Your task to perform on an android device: manage bookmarks in the chrome app Image 0: 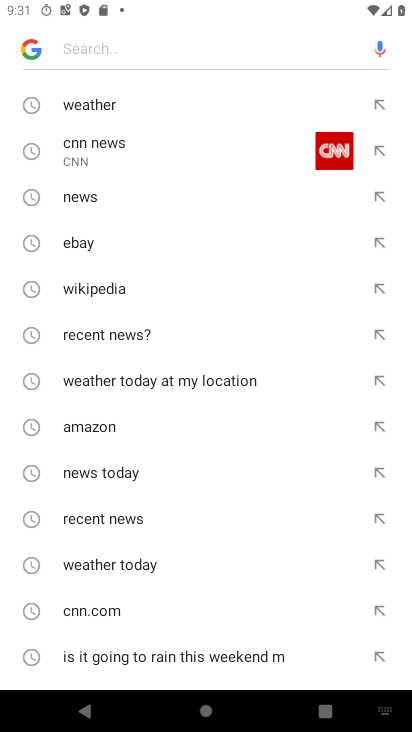
Step 0: press home button
Your task to perform on an android device: manage bookmarks in the chrome app Image 1: 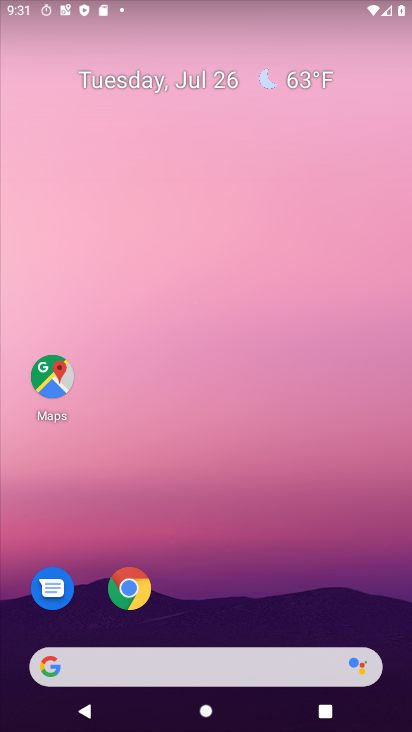
Step 1: click (131, 603)
Your task to perform on an android device: manage bookmarks in the chrome app Image 2: 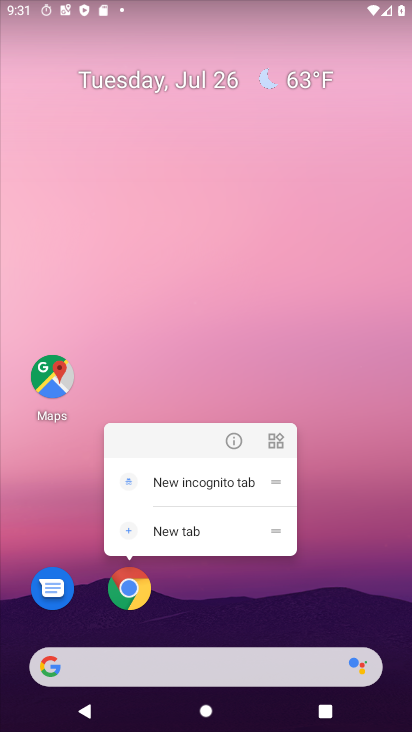
Step 2: click (131, 603)
Your task to perform on an android device: manage bookmarks in the chrome app Image 3: 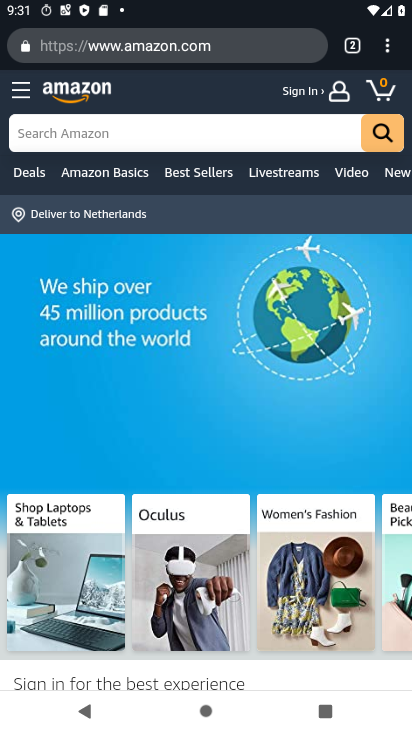
Step 3: click (393, 49)
Your task to perform on an android device: manage bookmarks in the chrome app Image 4: 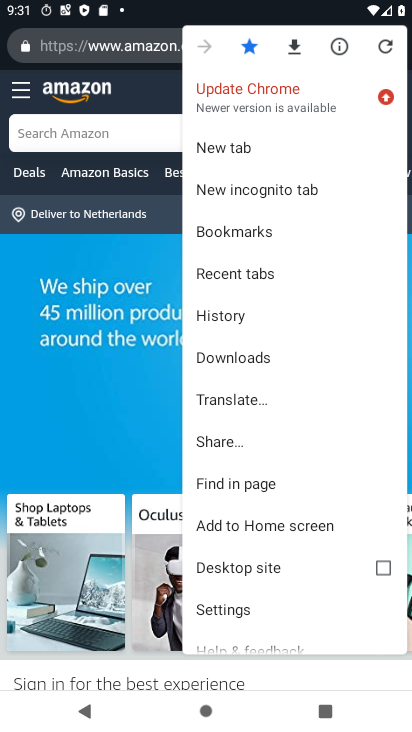
Step 4: click (254, 235)
Your task to perform on an android device: manage bookmarks in the chrome app Image 5: 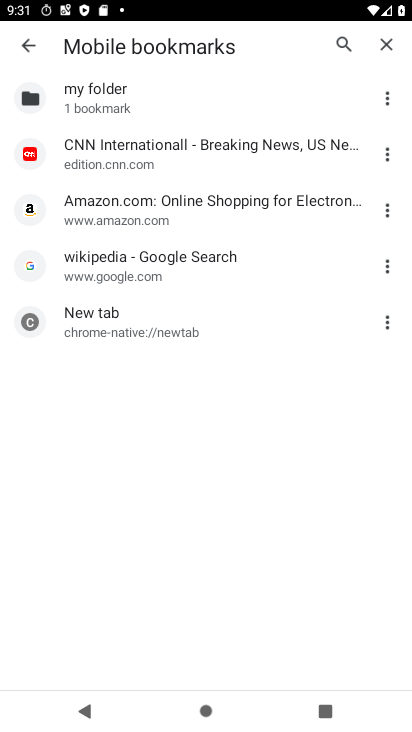
Step 5: click (396, 328)
Your task to perform on an android device: manage bookmarks in the chrome app Image 6: 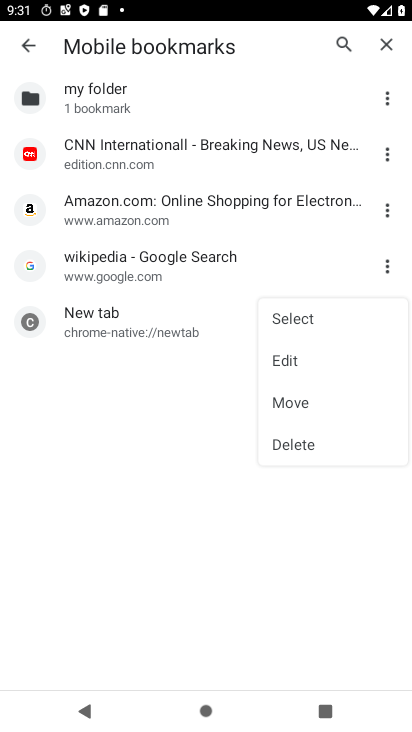
Step 6: click (340, 443)
Your task to perform on an android device: manage bookmarks in the chrome app Image 7: 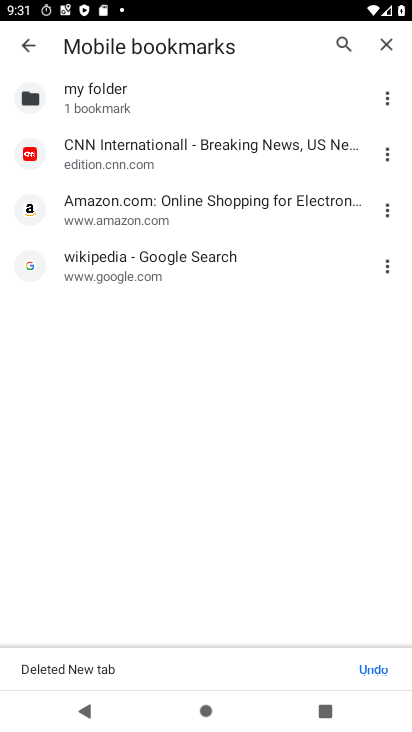
Step 7: task complete